Your task to perform on an android device: Clear all items from cart on walmart.com. Add "lg ultragear" to the cart on walmart.com Image 0: 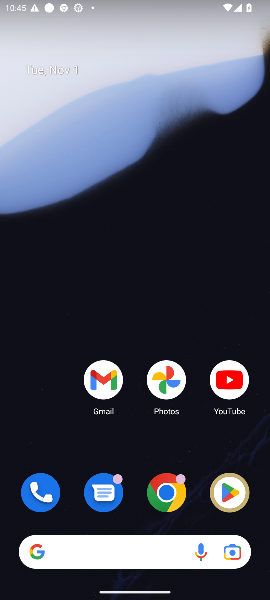
Step 0: click (170, 498)
Your task to perform on an android device: Clear all items from cart on walmart.com. Add "lg ultragear" to the cart on walmart.com Image 1: 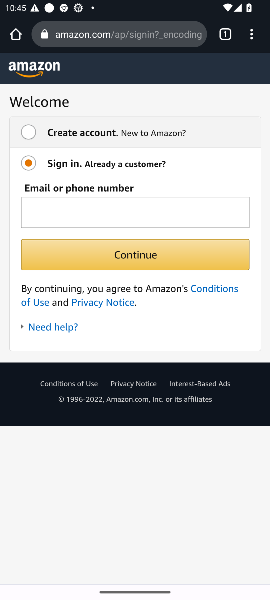
Step 1: press home button
Your task to perform on an android device: Clear all items from cart on walmart.com. Add "lg ultragear" to the cart on walmart.com Image 2: 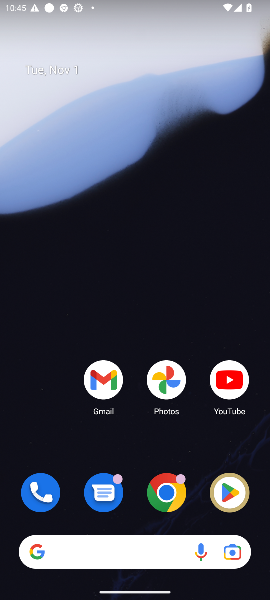
Step 2: click (173, 499)
Your task to perform on an android device: Clear all items from cart on walmart.com. Add "lg ultragear" to the cart on walmart.com Image 3: 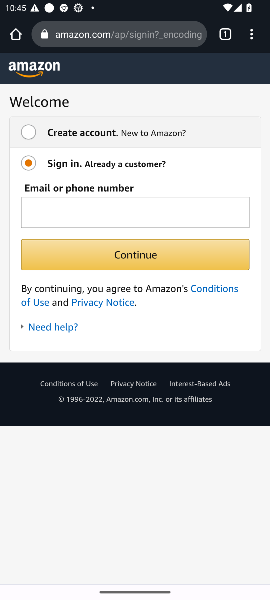
Step 3: click (133, 39)
Your task to perform on an android device: Clear all items from cart on walmart.com. Add "lg ultragear" to the cart on walmart.com Image 4: 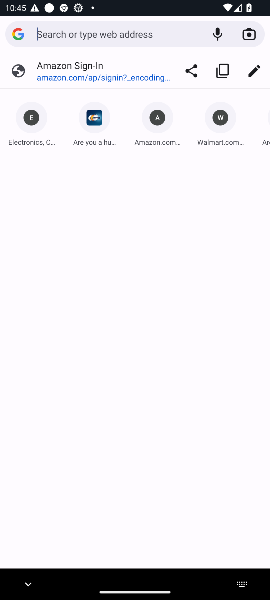
Step 4: type "walmart.com"
Your task to perform on an android device: Clear all items from cart on walmart.com. Add "lg ultragear" to the cart on walmart.com Image 5: 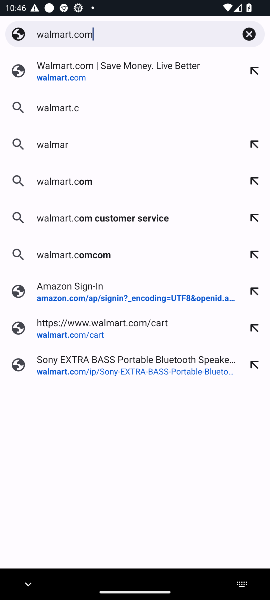
Step 5: type ""
Your task to perform on an android device: Clear all items from cart on walmart.com. Add "lg ultragear" to the cart on walmart.com Image 6: 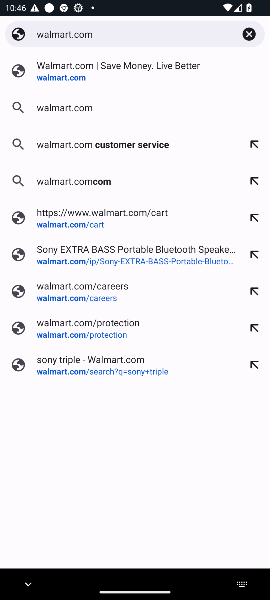
Step 6: click (92, 71)
Your task to perform on an android device: Clear all items from cart on walmart.com. Add "lg ultragear" to the cart on walmart.com Image 7: 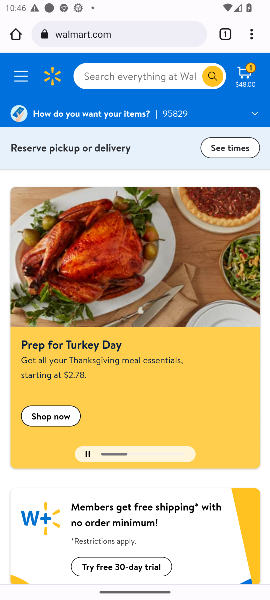
Step 7: click (248, 76)
Your task to perform on an android device: Clear all items from cart on walmart.com. Add "lg ultragear" to the cart on walmart.com Image 8: 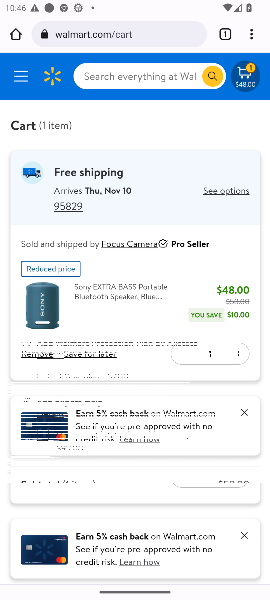
Step 8: click (138, 425)
Your task to perform on an android device: Clear all items from cart on walmart.com. Add "lg ultragear" to the cart on walmart.com Image 9: 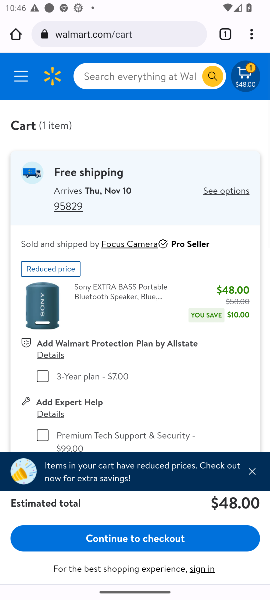
Step 9: drag from (131, 336) to (131, 271)
Your task to perform on an android device: Clear all items from cart on walmart.com. Add "lg ultragear" to the cart on walmart.com Image 10: 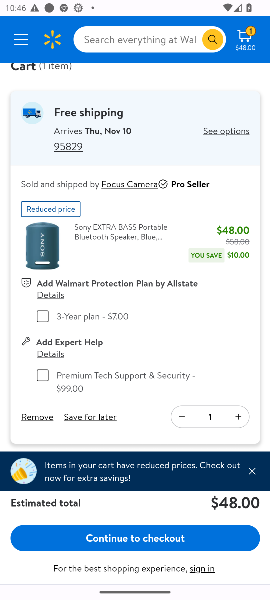
Step 10: click (254, 470)
Your task to perform on an android device: Clear all items from cart on walmart.com. Add "lg ultragear" to the cart on walmart.com Image 11: 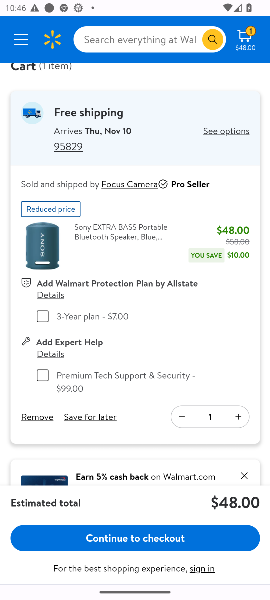
Step 11: click (247, 473)
Your task to perform on an android device: Clear all items from cart on walmart.com. Add "lg ultragear" to the cart on walmart.com Image 12: 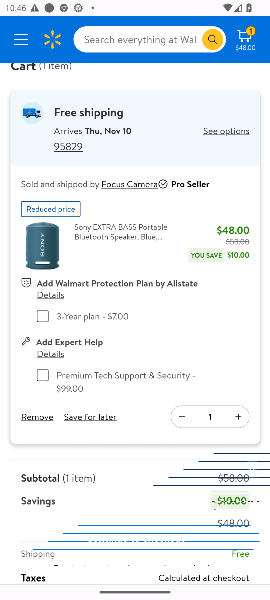
Step 12: click (31, 420)
Your task to perform on an android device: Clear all items from cart on walmart.com. Add "lg ultragear" to the cart on walmart.com Image 13: 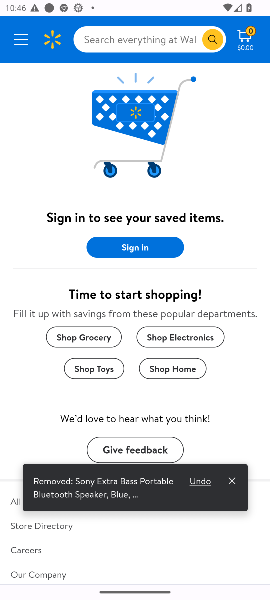
Step 13: click (102, 44)
Your task to perform on an android device: Clear all items from cart on walmart.com. Add "lg ultragear" to the cart on walmart.com Image 14: 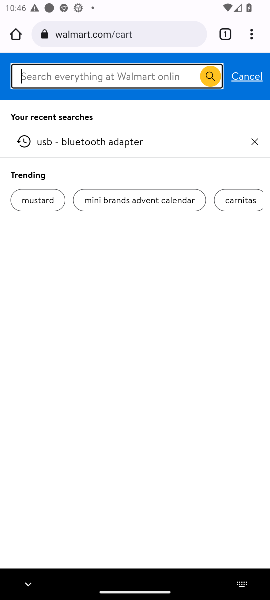
Step 14: type "lg ultragear"
Your task to perform on an android device: Clear all items from cart on walmart.com. Add "lg ultragear" to the cart on walmart.com Image 15: 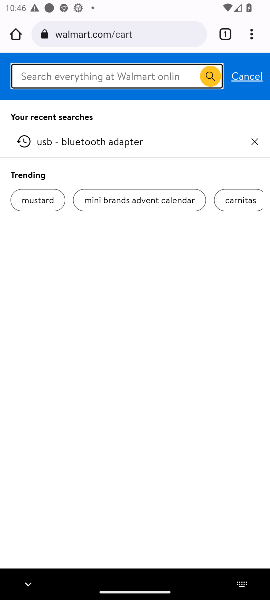
Step 15: type ""
Your task to perform on an android device: Clear all items from cart on walmart.com. Add "lg ultragear" to the cart on walmart.com Image 16: 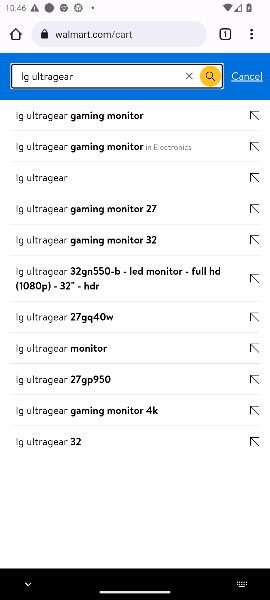
Step 16: click (113, 119)
Your task to perform on an android device: Clear all items from cart on walmart.com. Add "lg ultragear" to the cart on walmart.com Image 17: 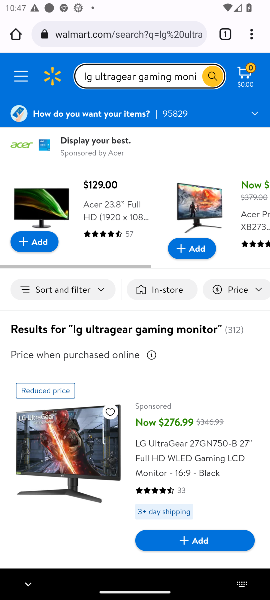
Step 17: click (73, 451)
Your task to perform on an android device: Clear all items from cart on walmart.com. Add "lg ultragear" to the cart on walmart.com Image 18: 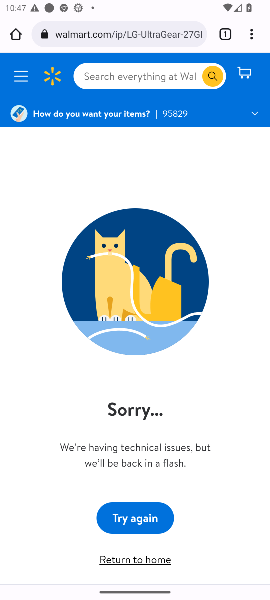
Step 18: click (124, 525)
Your task to perform on an android device: Clear all items from cart on walmart.com. Add "lg ultragear" to the cart on walmart.com Image 19: 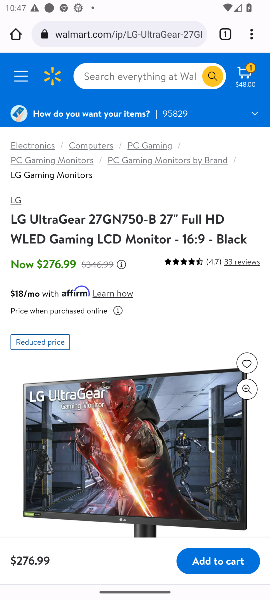
Step 19: click (209, 566)
Your task to perform on an android device: Clear all items from cart on walmart.com. Add "lg ultragear" to the cart on walmart.com Image 20: 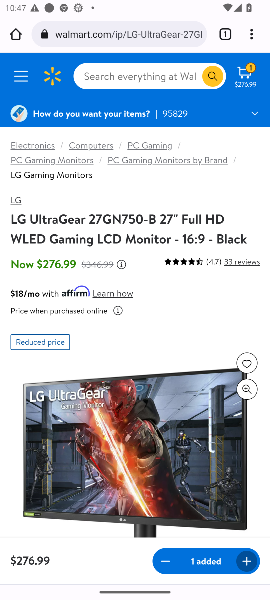
Step 20: click (247, 77)
Your task to perform on an android device: Clear all items from cart on walmart.com. Add "lg ultragear" to the cart on walmart.com Image 21: 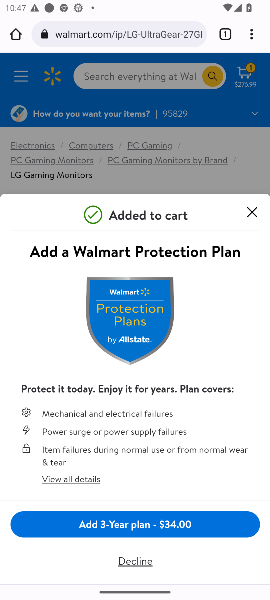
Step 21: click (141, 561)
Your task to perform on an android device: Clear all items from cart on walmart.com. Add "lg ultragear" to the cart on walmart.com Image 22: 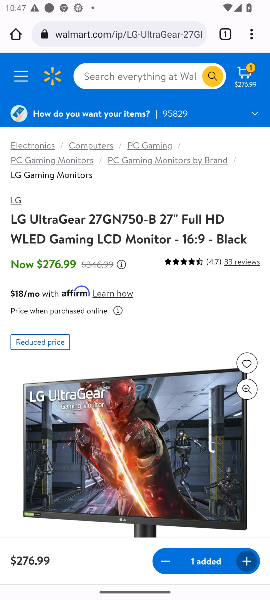
Step 22: click (250, 78)
Your task to perform on an android device: Clear all items from cart on walmart.com. Add "lg ultragear" to the cart on walmart.com Image 23: 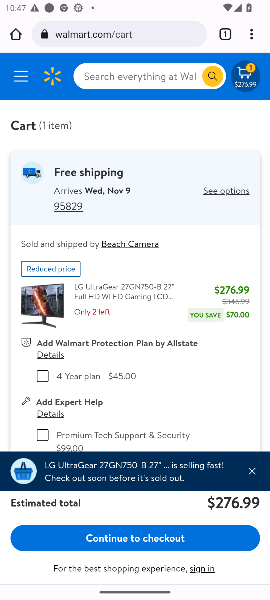
Step 23: click (167, 542)
Your task to perform on an android device: Clear all items from cart on walmart.com. Add "lg ultragear" to the cart on walmart.com Image 24: 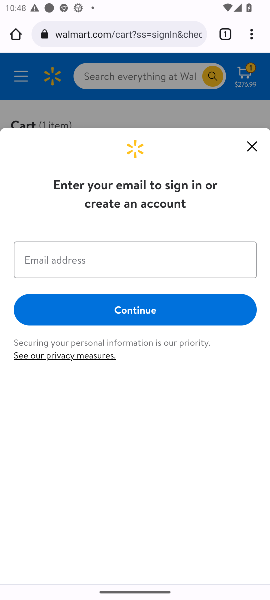
Step 24: task complete